Your task to perform on an android device: turn pop-ups on in chrome Image 0: 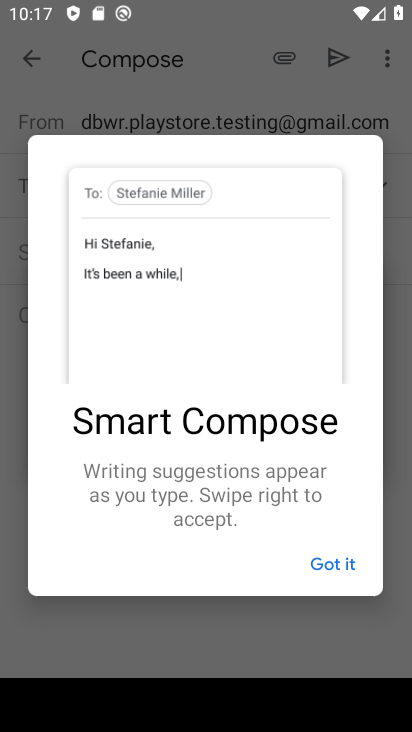
Step 0: press home button
Your task to perform on an android device: turn pop-ups on in chrome Image 1: 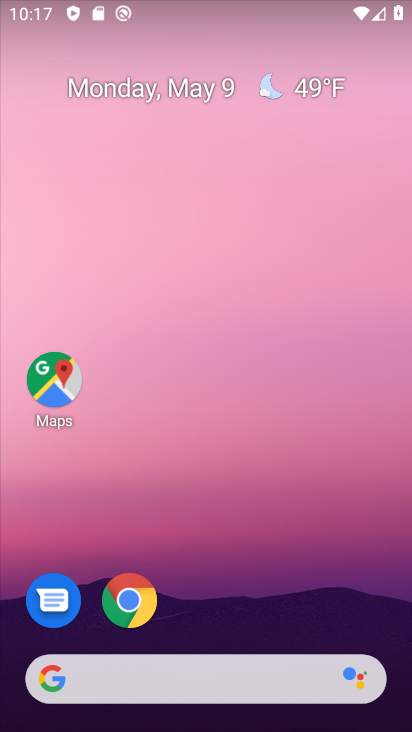
Step 1: drag from (386, 587) to (371, 94)
Your task to perform on an android device: turn pop-ups on in chrome Image 2: 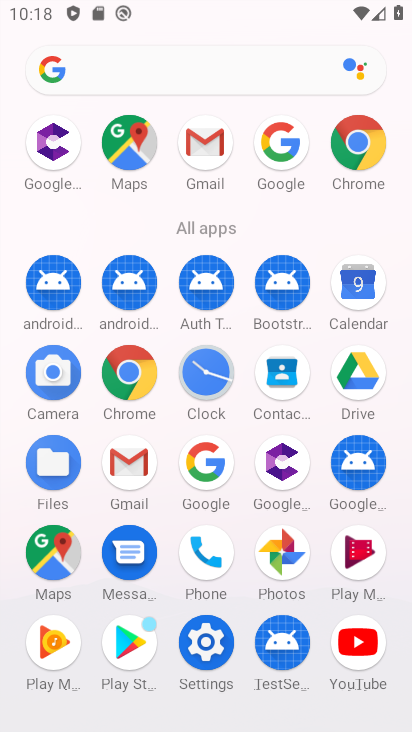
Step 2: click (139, 386)
Your task to perform on an android device: turn pop-ups on in chrome Image 3: 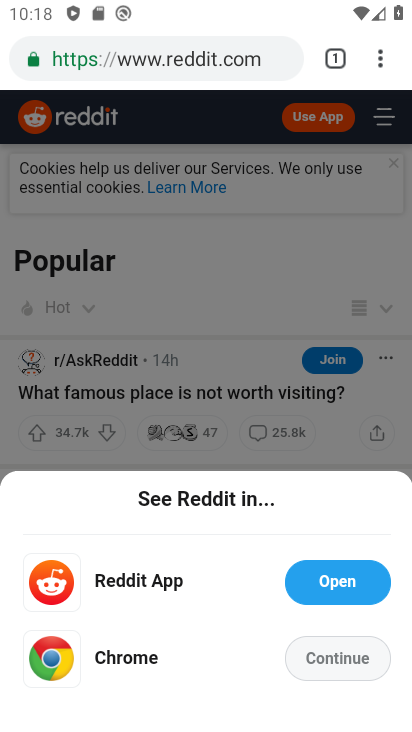
Step 3: click (178, 50)
Your task to perform on an android device: turn pop-ups on in chrome Image 4: 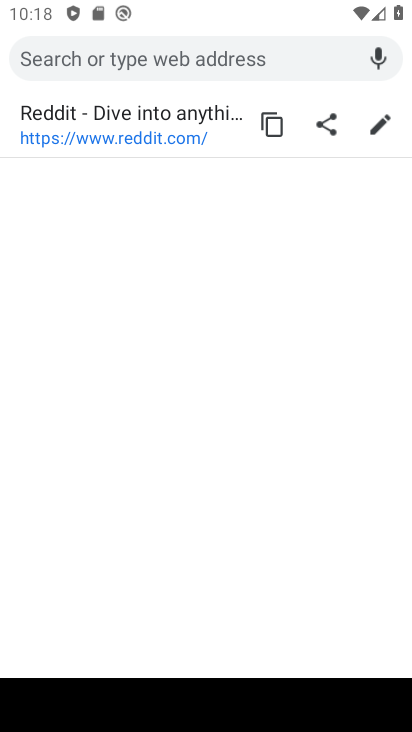
Step 4: press back button
Your task to perform on an android device: turn pop-ups on in chrome Image 5: 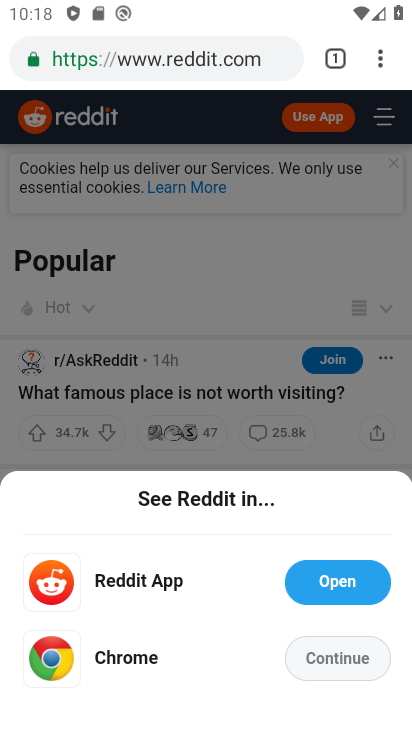
Step 5: drag from (379, 51) to (215, 637)
Your task to perform on an android device: turn pop-ups on in chrome Image 6: 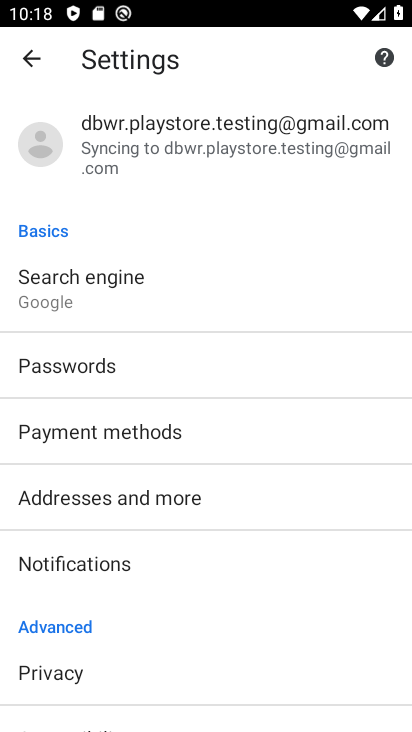
Step 6: drag from (215, 648) to (296, 312)
Your task to perform on an android device: turn pop-ups on in chrome Image 7: 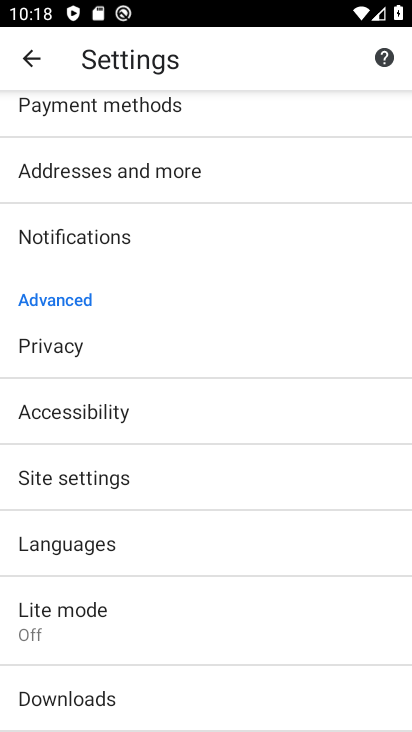
Step 7: click (159, 475)
Your task to perform on an android device: turn pop-ups on in chrome Image 8: 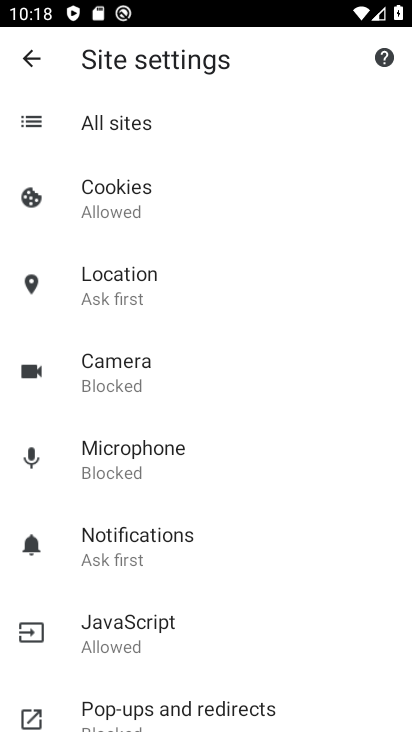
Step 8: drag from (222, 650) to (258, 421)
Your task to perform on an android device: turn pop-ups on in chrome Image 9: 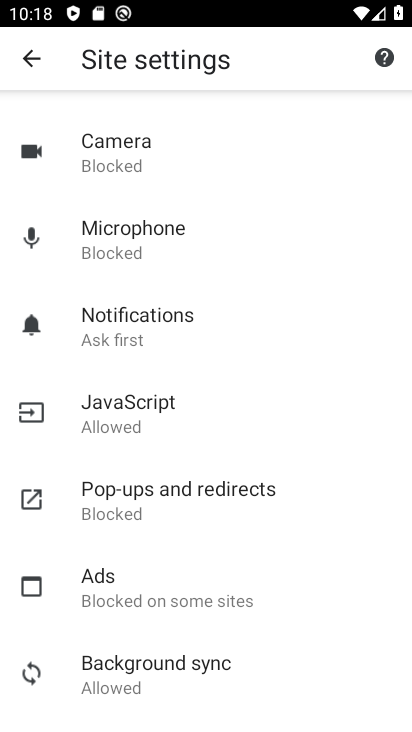
Step 9: click (196, 498)
Your task to perform on an android device: turn pop-ups on in chrome Image 10: 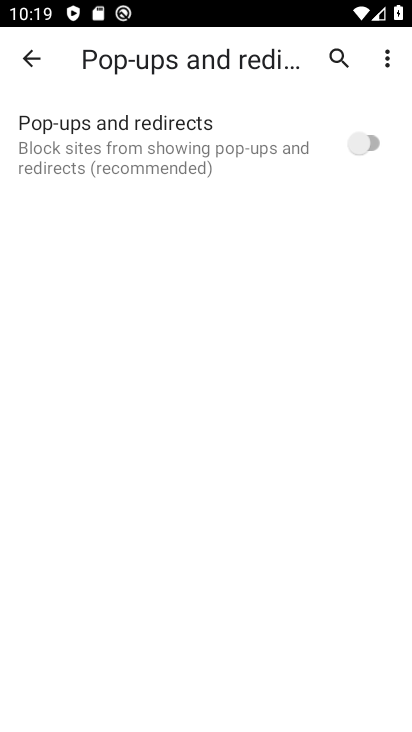
Step 10: click (372, 148)
Your task to perform on an android device: turn pop-ups on in chrome Image 11: 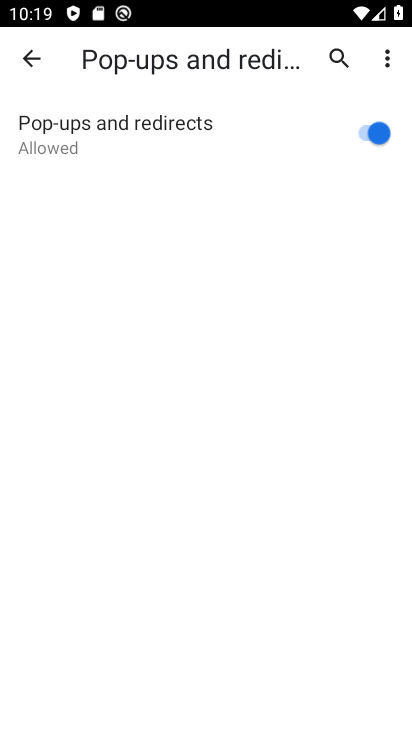
Step 11: task complete